Your task to perform on an android device: change your default location settings in chrome Image 0: 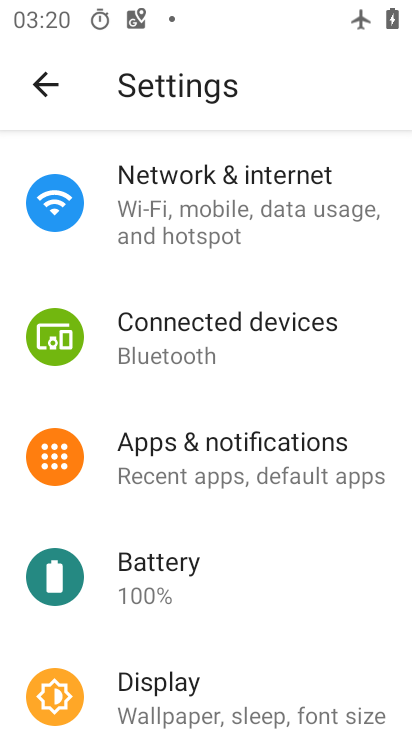
Step 0: press back button
Your task to perform on an android device: change your default location settings in chrome Image 1: 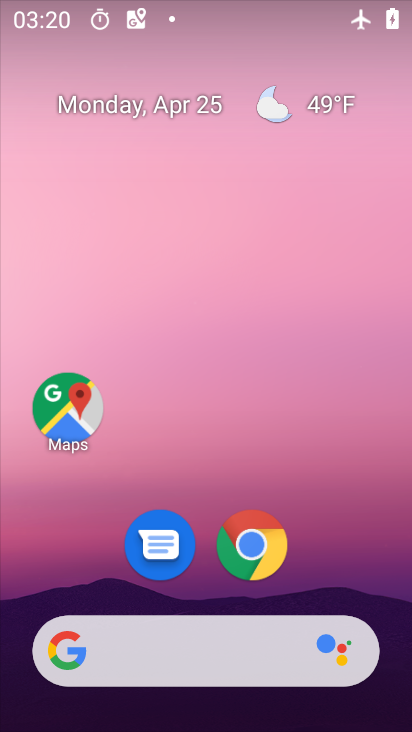
Step 1: click (254, 542)
Your task to perform on an android device: change your default location settings in chrome Image 2: 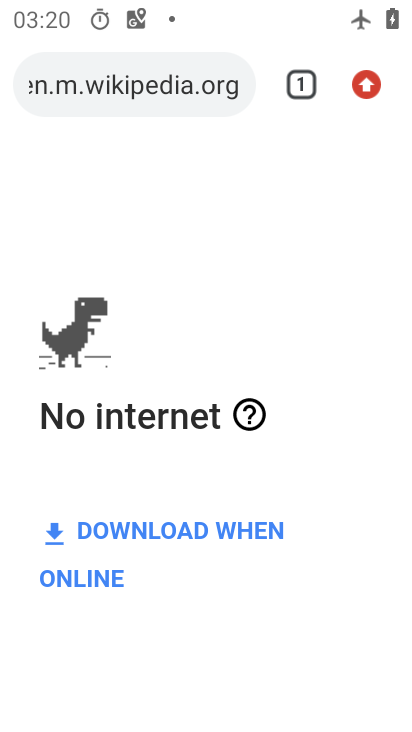
Step 2: click (368, 85)
Your task to perform on an android device: change your default location settings in chrome Image 3: 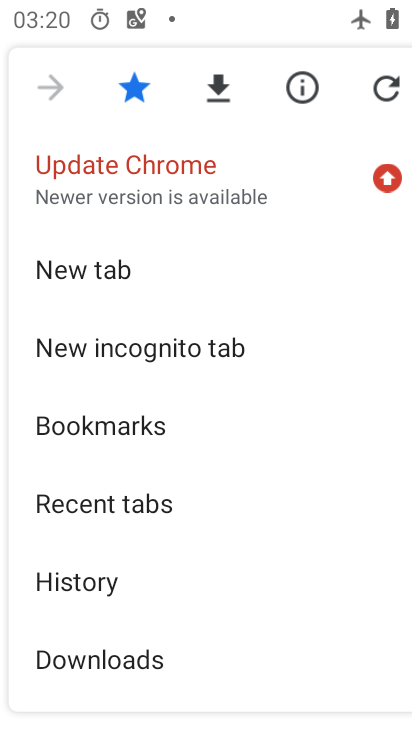
Step 3: drag from (176, 587) to (184, 454)
Your task to perform on an android device: change your default location settings in chrome Image 4: 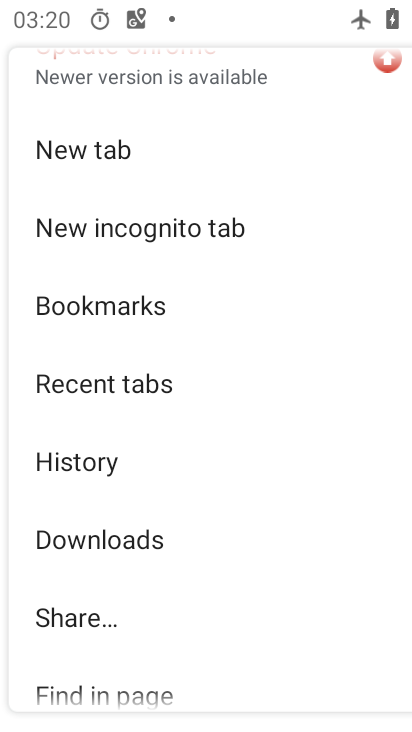
Step 4: drag from (157, 569) to (192, 485)
Your task to perform on an android device: change your default location settings in chrome Image 5: 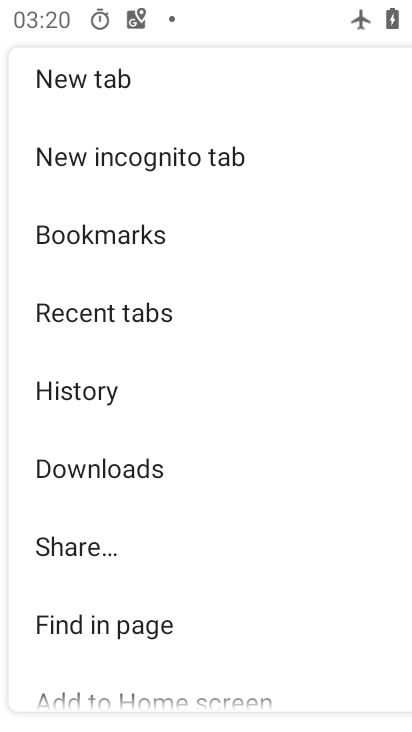
Step 5: drag from (131, 575) to (176, 484)
Your task to perform on an android device: change your default location settings in chrome Image 6: 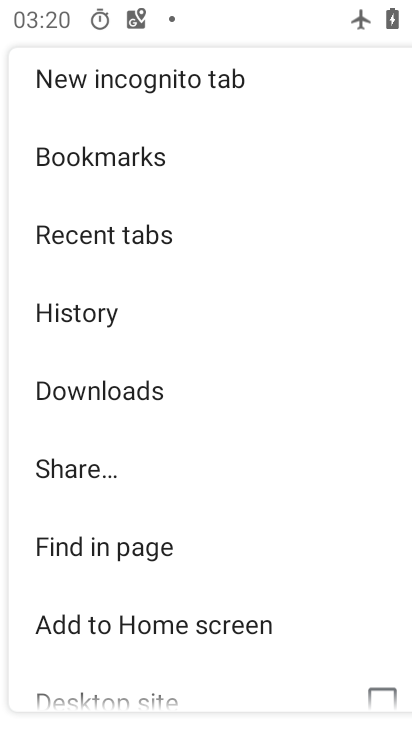
Step 6: drag from (151, 568) to (215, 472)
Your task to perform on an android device: change your default location settings in chrome Image 7: 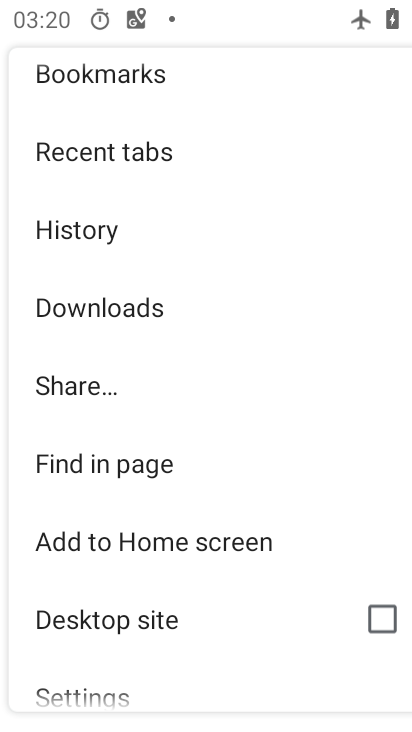
Step 7: drag from (167, 573) to (214, 481)
Your task to perform on an android device: change your default location settings in chrome Image 8: 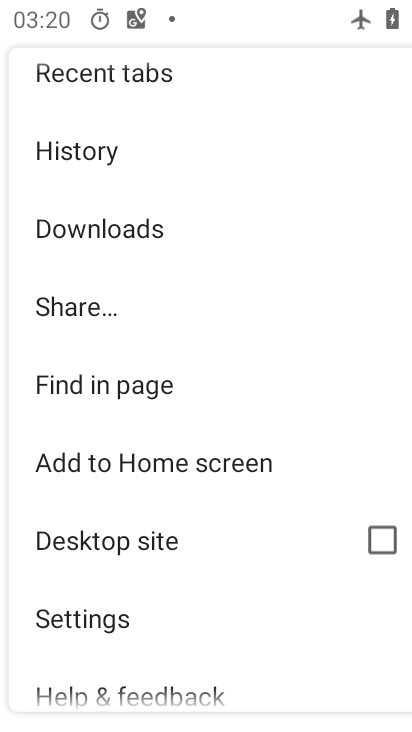
Step 8: click (113, 610)
Your task to perform on an android device: change your default location settings in chrome Image 9: 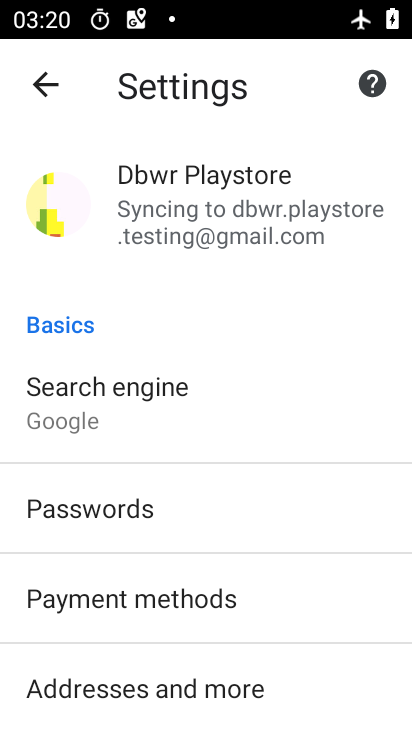
Step 9: drag from (200, 511) to (258, 415)
Your task to perform on an android device: change your default location settings in chrome Image 10: 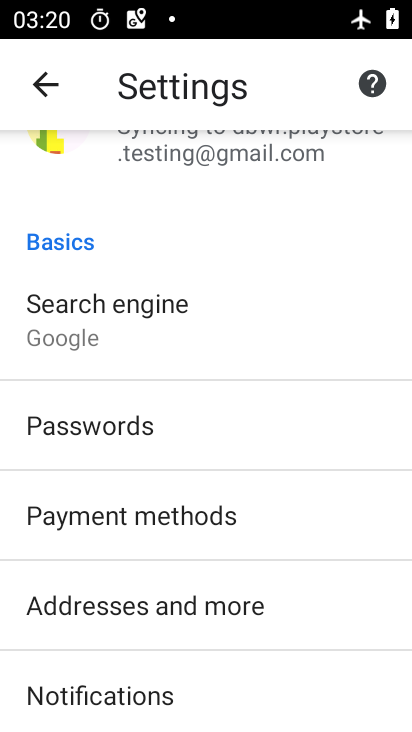
Step 10: drag from (214, 541) to (260, 467)
Your task to perform on an android device: change your default location settings in chrome Image 11: 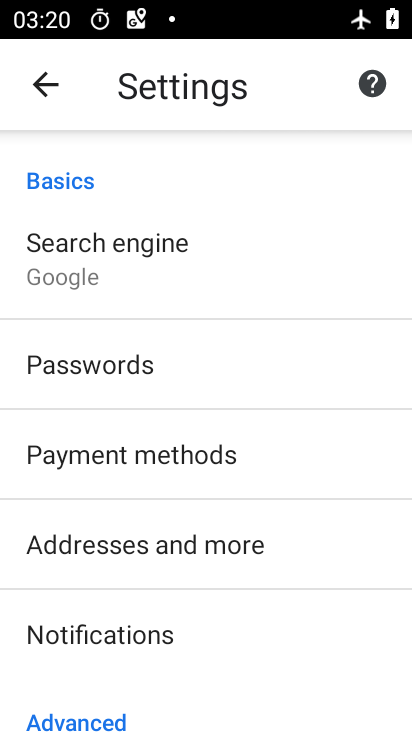
Step 11: drag from (181, 613) to (249, 510)
Your task to perform on an android device: change your default location settings in chrome Image 12: 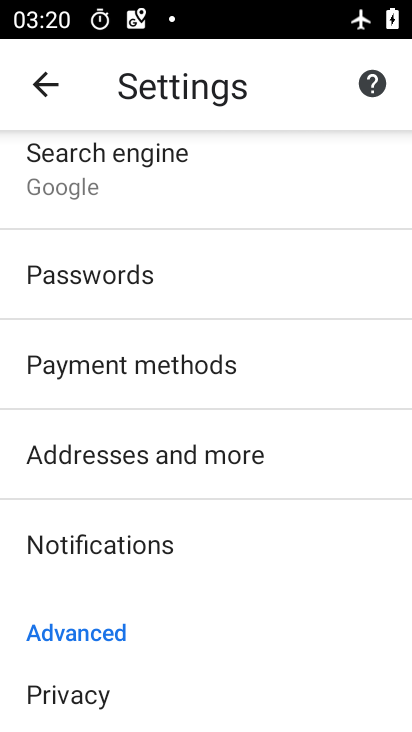
Step 12: drag from (187, 601) to (264, 494)
Your task to perform on an android device: change your default location settings in chrome Image 13: 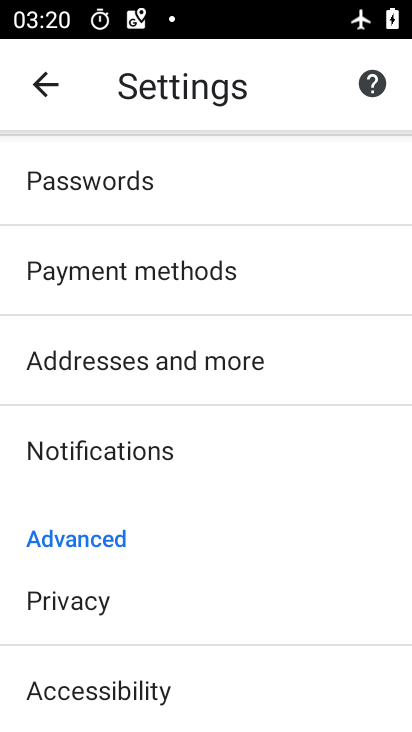
Step 13: drag from (181, 582) to (264, 479)
Your task to perform on an android device: change your default location settings in chrome Image 14: 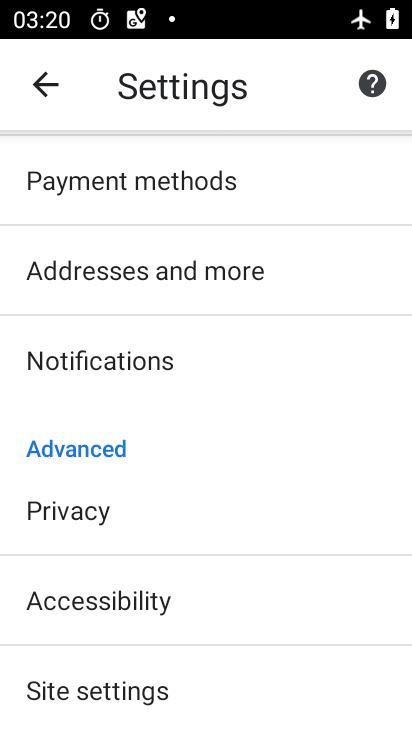
Step 14: drag from (216, 702) to (278, 589)
Your task to perform on an android device: change your default location settings in chrome Image 15: 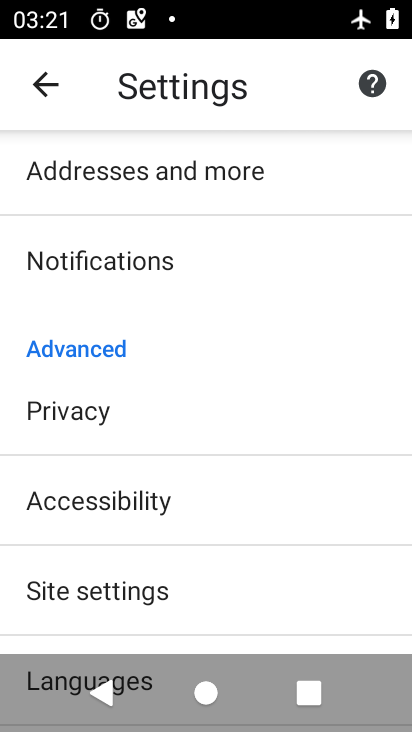
Step 15: click (131, 589)
Your task to perform on an android device: change your default location settings in chrome Image 16: 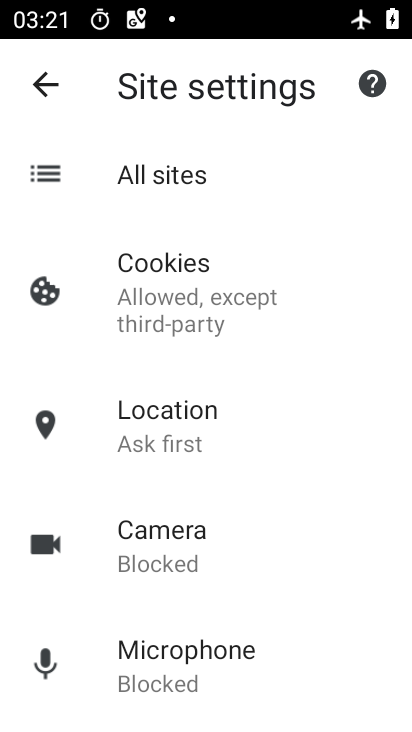
Step 16: drag from (242, 555) to (319, 447)
Your task to perform on an android device: change your default location settings in chrome Image 17: 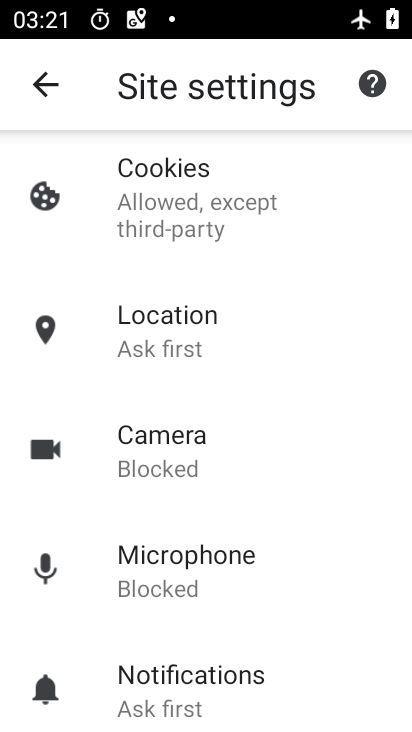
Step 17: click (206, 328)
Your task to perform on an android device: change your default location settings in chrome Image 18: 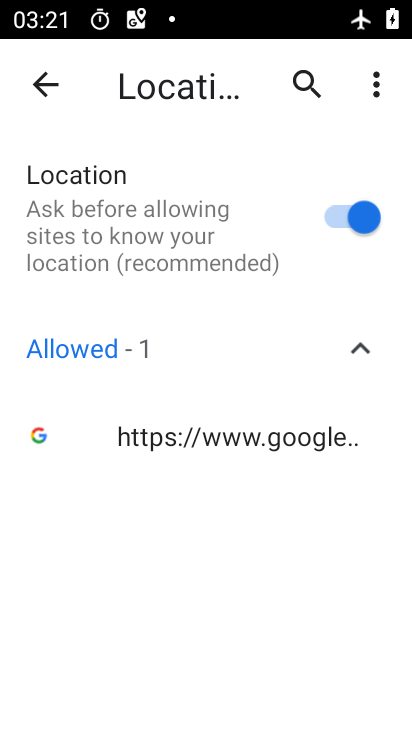
Step 18: click (365, 209)
Your task to perform on an android device: change your default location settings in chrome Image 19: 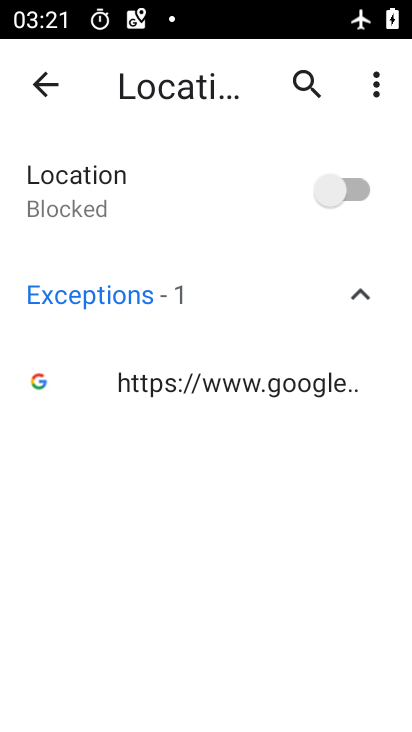
Step 19: task complete